Your task to perform on an android device: Go to settings Image 0: 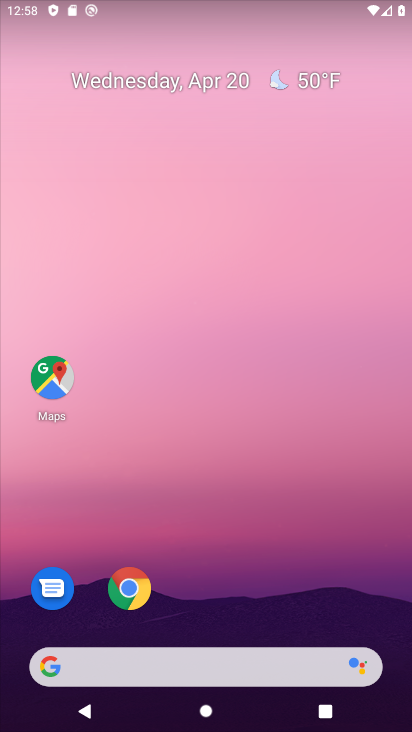
Step 0: drag from (192, 596) to (242, 209)
Your task to perform on an android device: Go to settings Image 1: 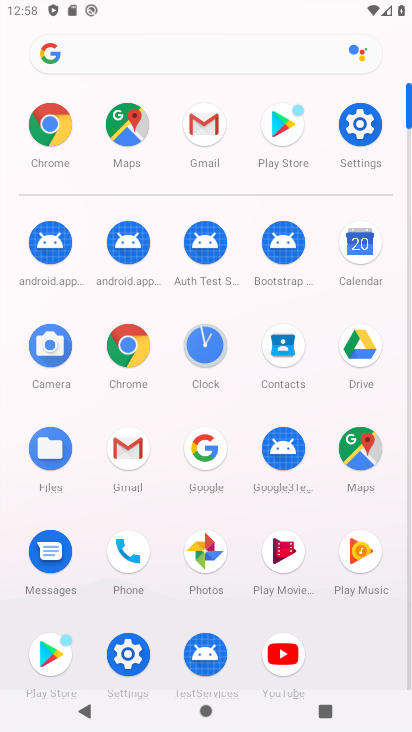
Step 1: click (347, 123)
Your task to perform on an android device: Go to settings Image 2: 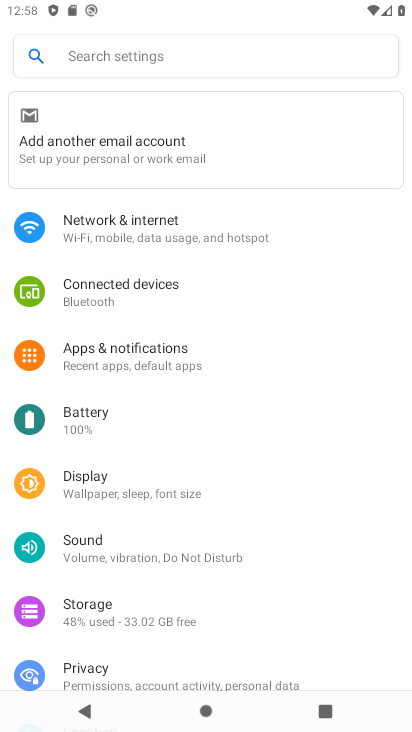
Step 2: task complete